Your task to perform on an android device: Open Youtube and go to "Your channel" Image 0: 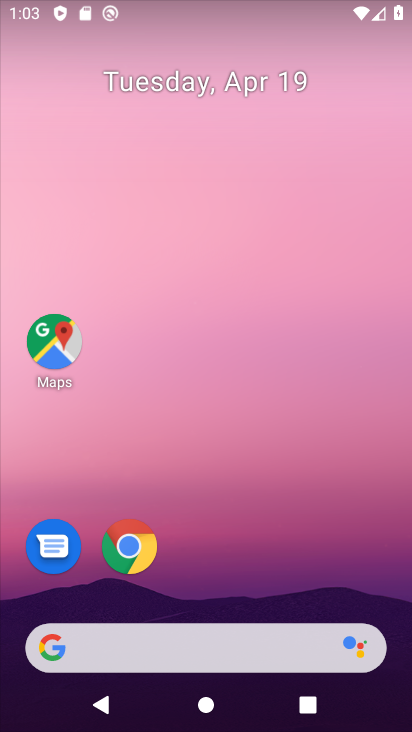
Step 0: drag from (256, 554) to (354, 86)
Your task to perform on an android device: Open Youtube and go to "Your channel" Image 1: 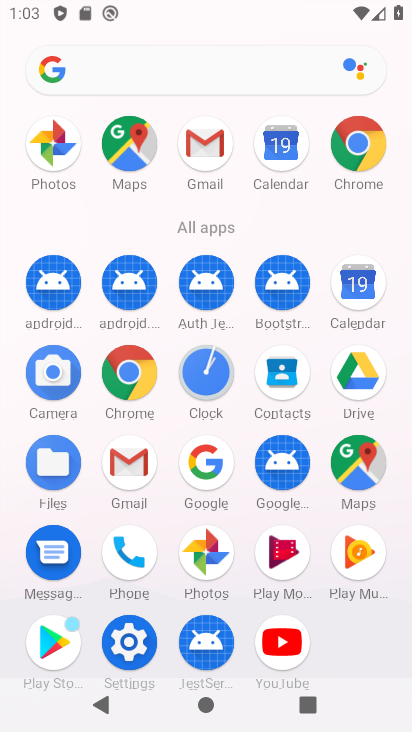
Step 1: click (273, 642)
Your task to perform on an android device: Open Youtube and go to "Your channel" Image 2: 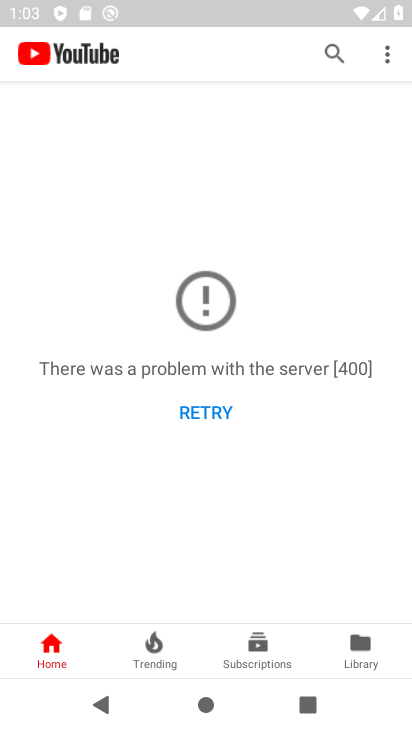
Step 2: click (332, 656)
Your task to perform on an android device: Open Youtube and go to "Your channel" Image 3: 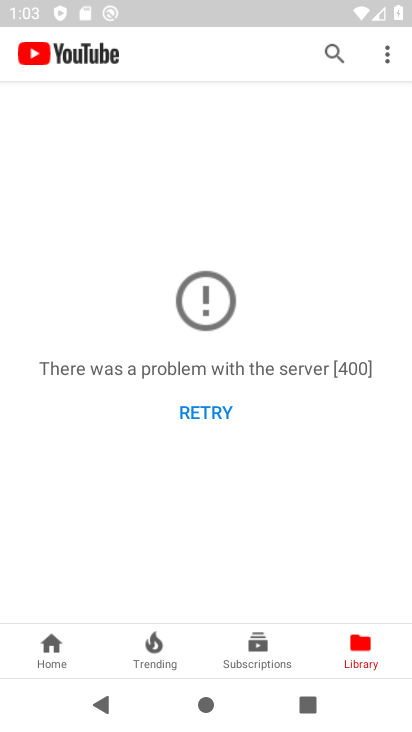
Step 3: task complete